Your task to perform on an android device: change timer sound Image 0: 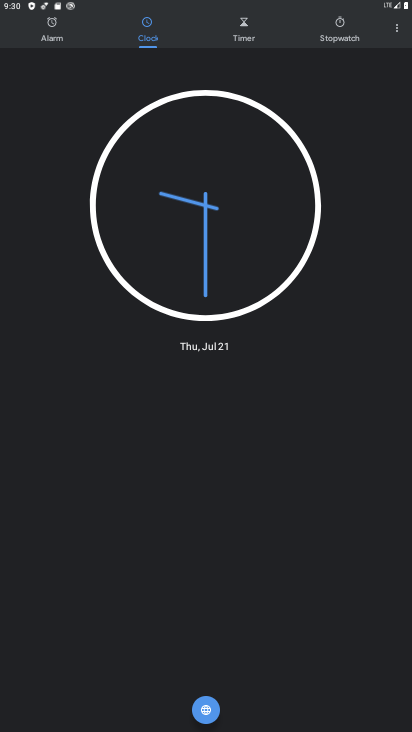
Step 0: press home button
Your task to perform on an android device: change timer sound Image 1: 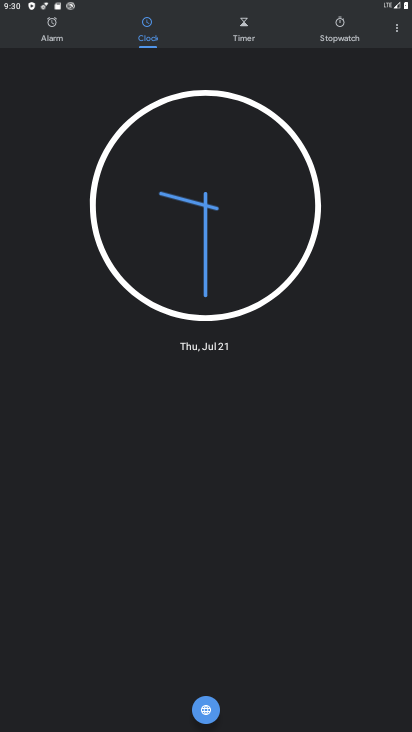
Step 1: drag from (238, 390) to (267, 157)
Your task to perform on an android device: change timer sound Image 2: 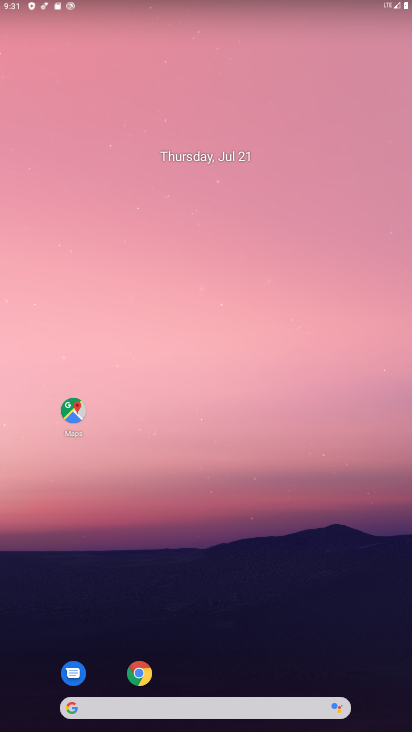
Step 2: drag from (184, 668) to (194, 206)
Your task to perform on an android device: change timer sound Image 3: 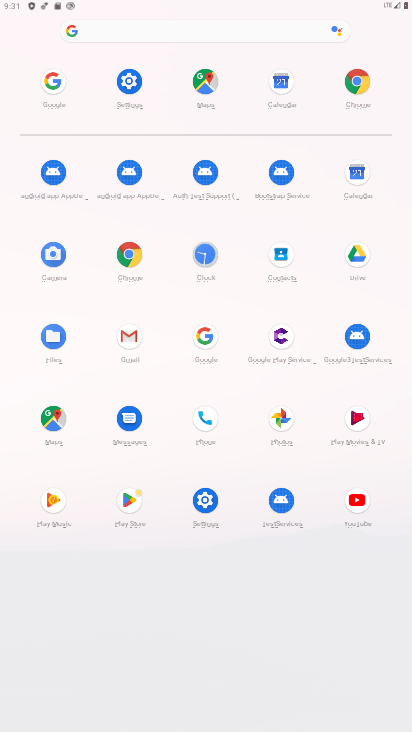
Step 3: click (202, 268)
Your task to perform on an android device: change timer sound Image 4: 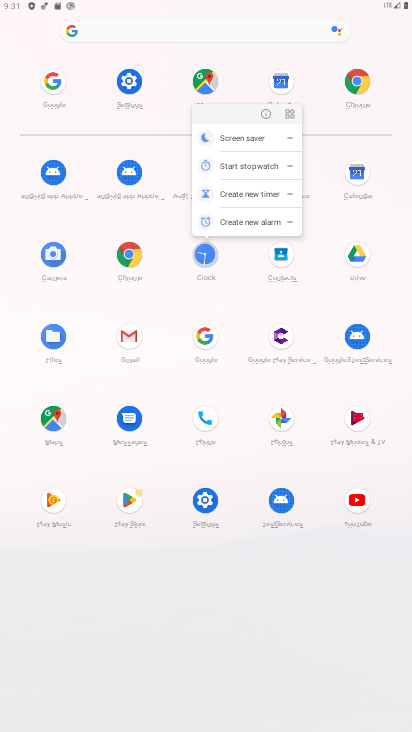
Step 4: click (265, 110)
Your task to perform on an android device: change timer sound Image 5: 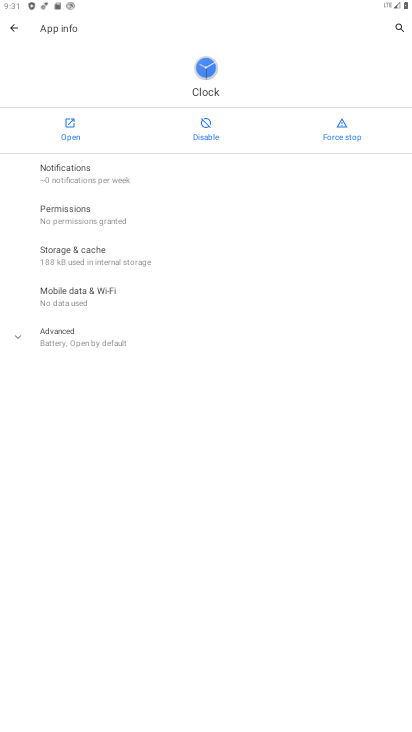
Step 5: click (71, 139)
Your task to perform on an android device: change timer sound Image 6: 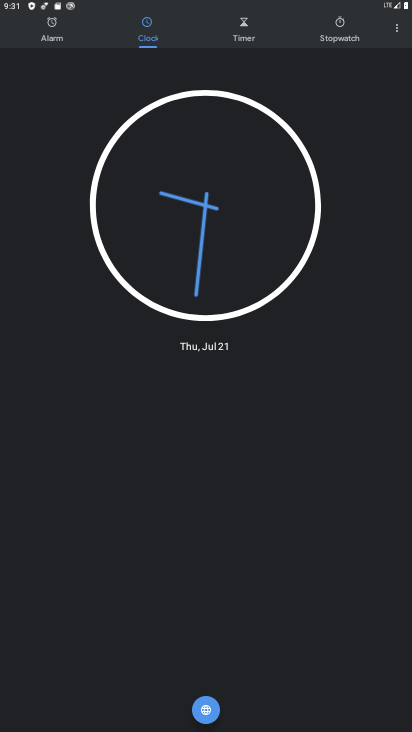
Step 6: drag from (388, 27) to (377, 85)
Your task to perform on an android device: change timer sound Image 7: 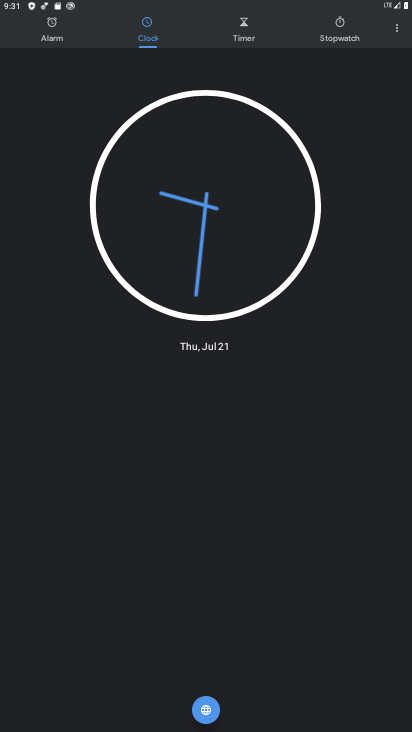
Step 7: drag from (397, 32) to (343, 55)
Your task to perform on an android device: change timer sound Image 8: 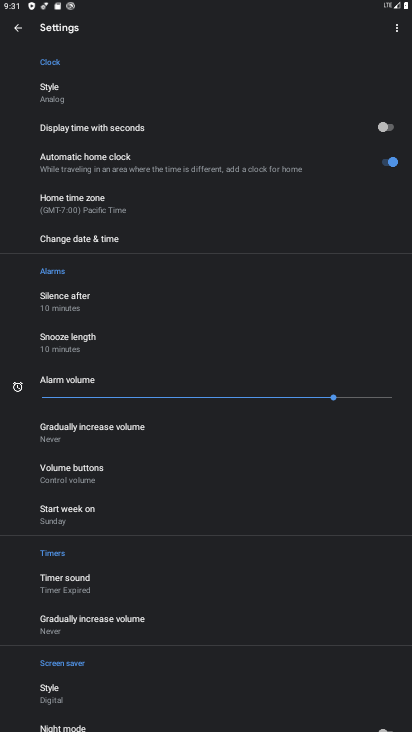
Step 8: click (63, 567)
Your task to perform on an android device: change timer sound Image 9: 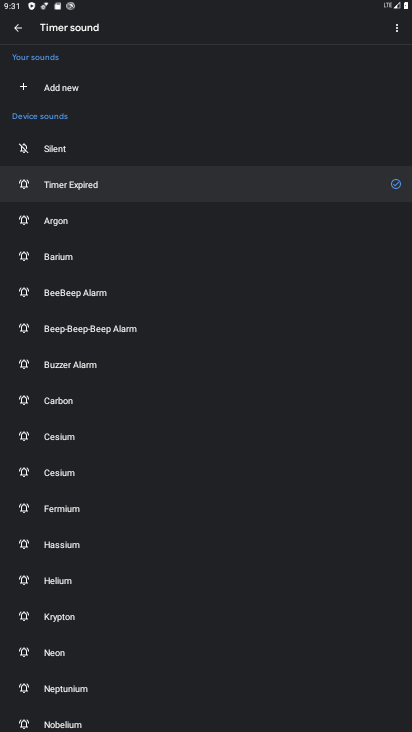
Step 9: click (123, 238)
Your task to perform on an android device: change timer sound Image 10: 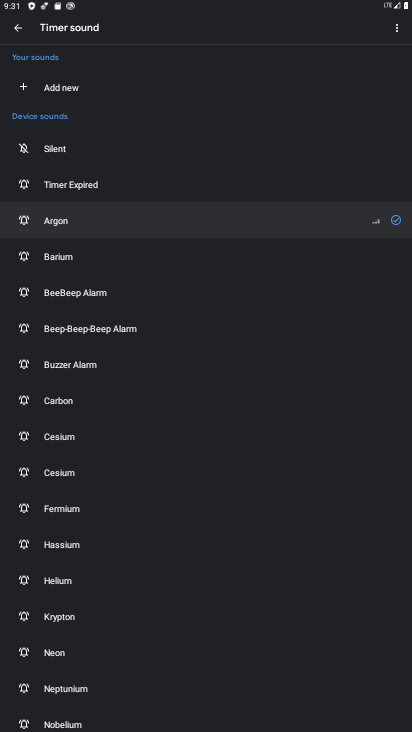
Step 10: task complete